Your task to perform on an android device: toggle javascript in the chrome app Image 0: 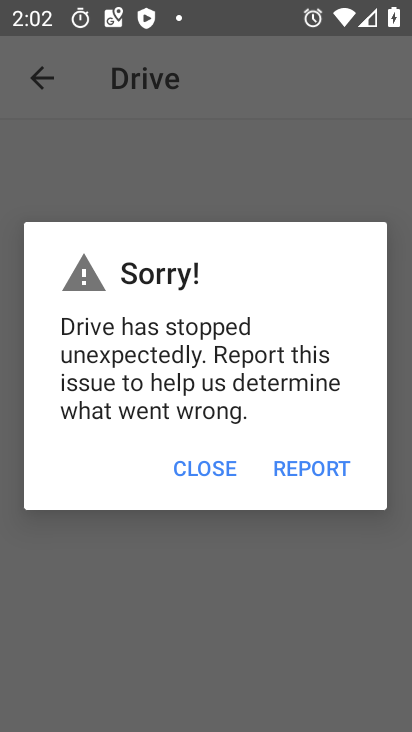
Step 0: press back button
Your task to perform on an android device: toggle javascript in the chrome app Image 1: 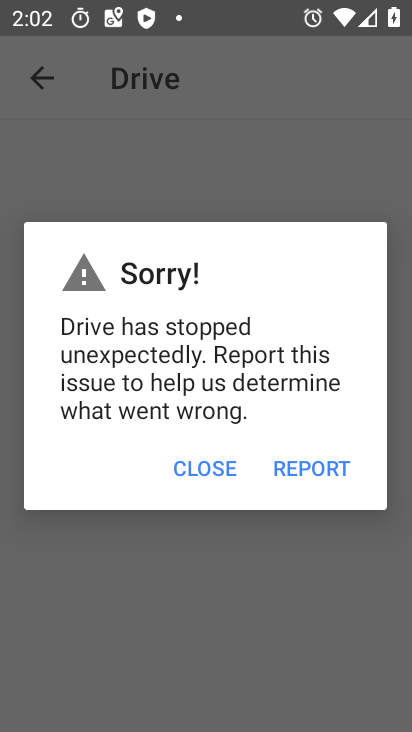
Step 1: press home button
Your task to perform on an android device: toggle javascript in the chrome app Image 2: 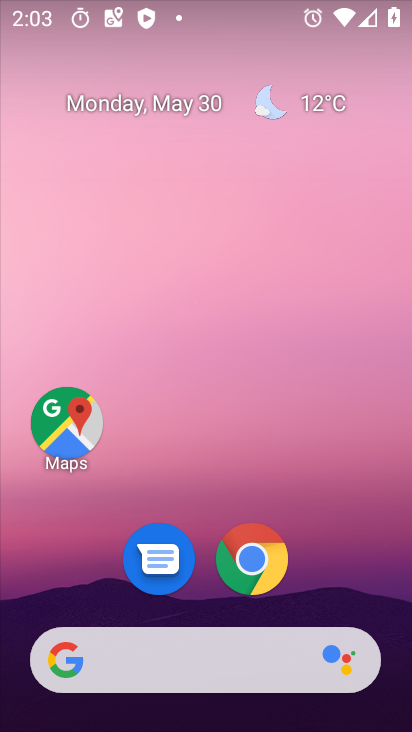
Step 2: click (249, 538)
Your task to perform on an android device: toggle javascript in the chrome app Image 3: 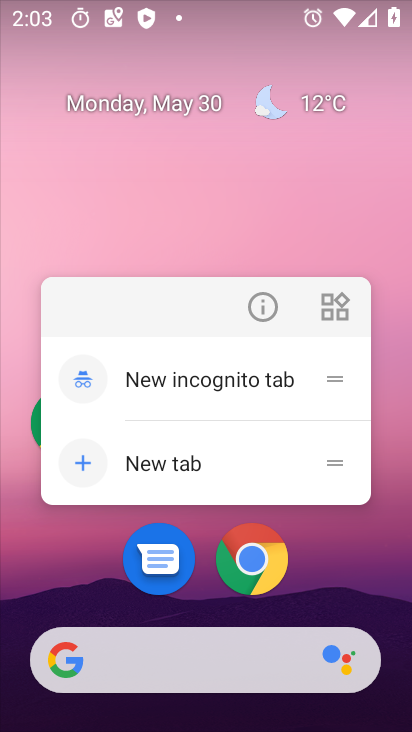
Step 3: click (260, 549)
Your task to perform on an android device: toggle javascript in the chrome app Image 4: 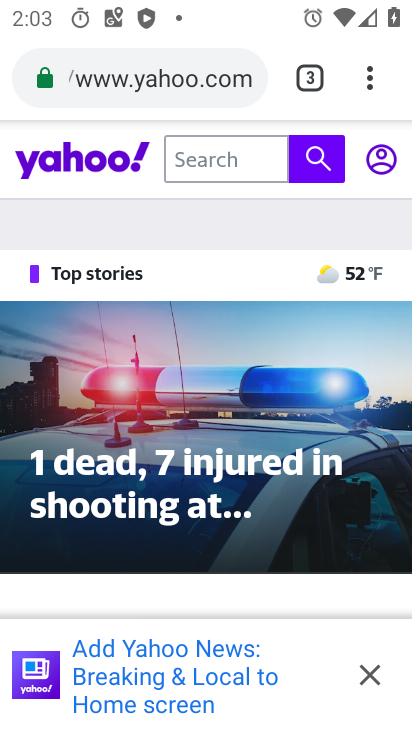
Step 4: drag from (359, 72) to (97, 606)
Your task to perform on an android device: toggle javascript in the chrome app Image 5: 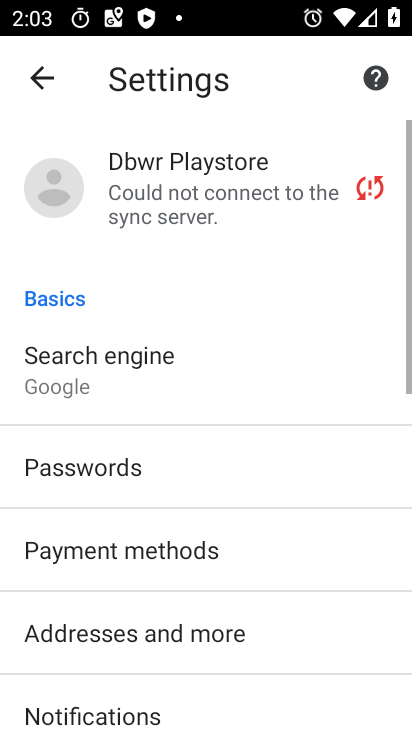
Step 5: drag from (170, 678) to (242, 214)
Your task to perform on an android device: toggle javascript in the chrome app Image 6: 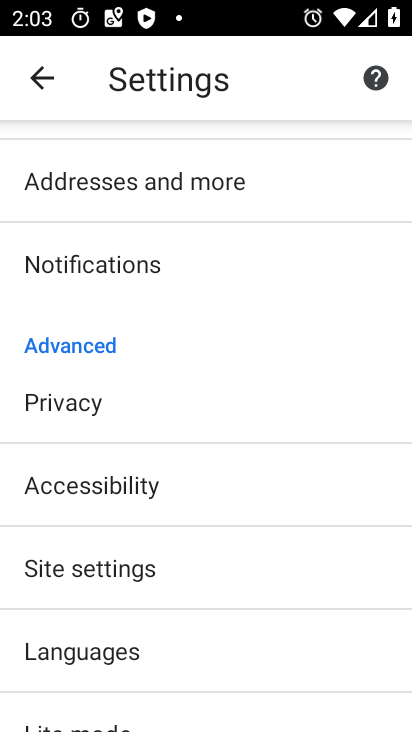
Step 6: click (94, 569)
Your task to perform on an android device: toggle javascript in the chrome app Image 7: 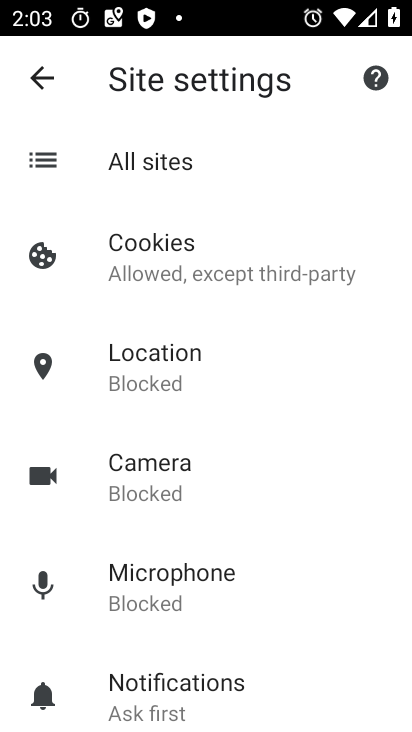
Step 7: drag from (204, 662) to (290, 181)
Your task to perform on an android device: toggle javascript in the chrome app Image 8: 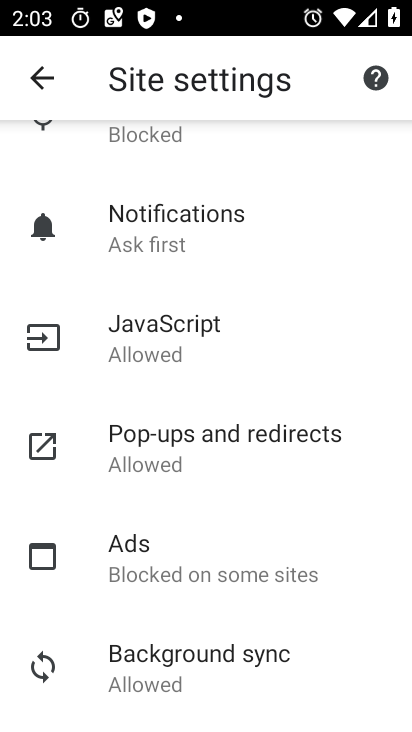
Step 8: click (165, 355)
Your task to perform on an android device: toggle javascript in the chrome app Image 9: 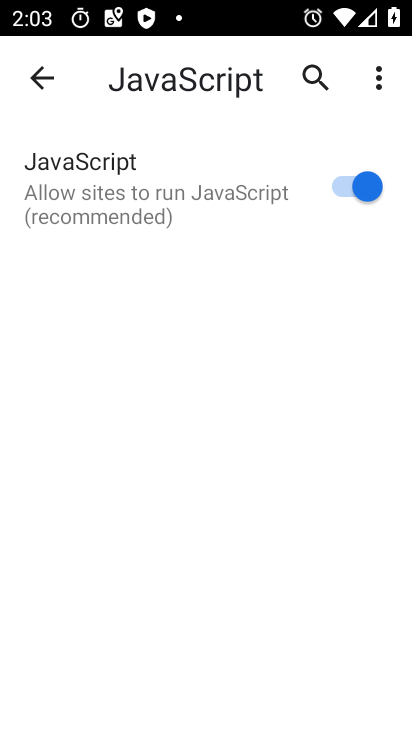
Step 9: click (374, 182)
Your task to perform on an android device: toggle javascript in the chrome app Image 10: 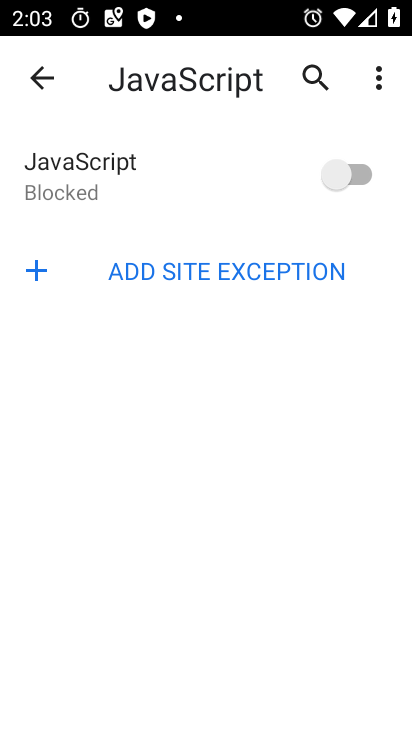
Step 10: task complete